Your task to perform on an android device: open app "DoorDash - Dasher" Image 0: 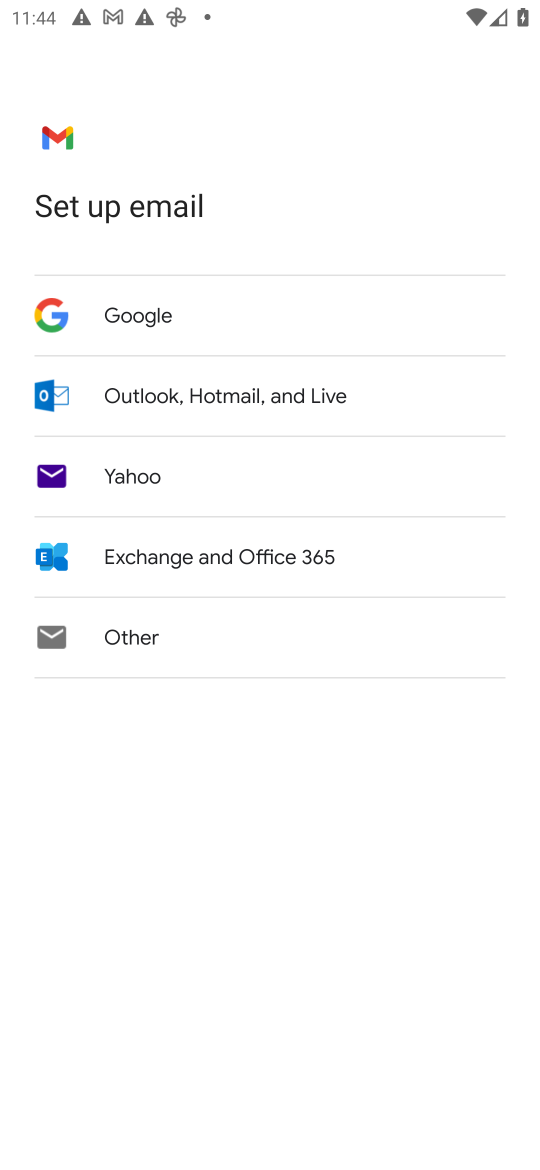
Step 0: press home button
Your task to perform on an android device: open app "DoorDash - Dasher" Image 1: 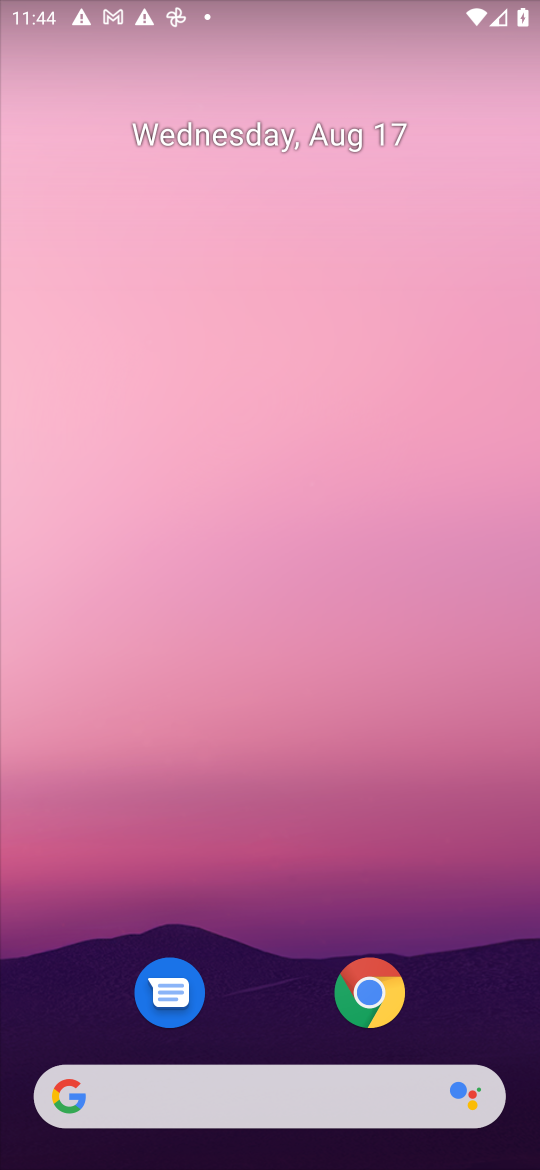
Step 1: drag from (485, 983) to (177, 147)
Your task to perform on an android device: open app "DoorDash - Dasher" Image 2: 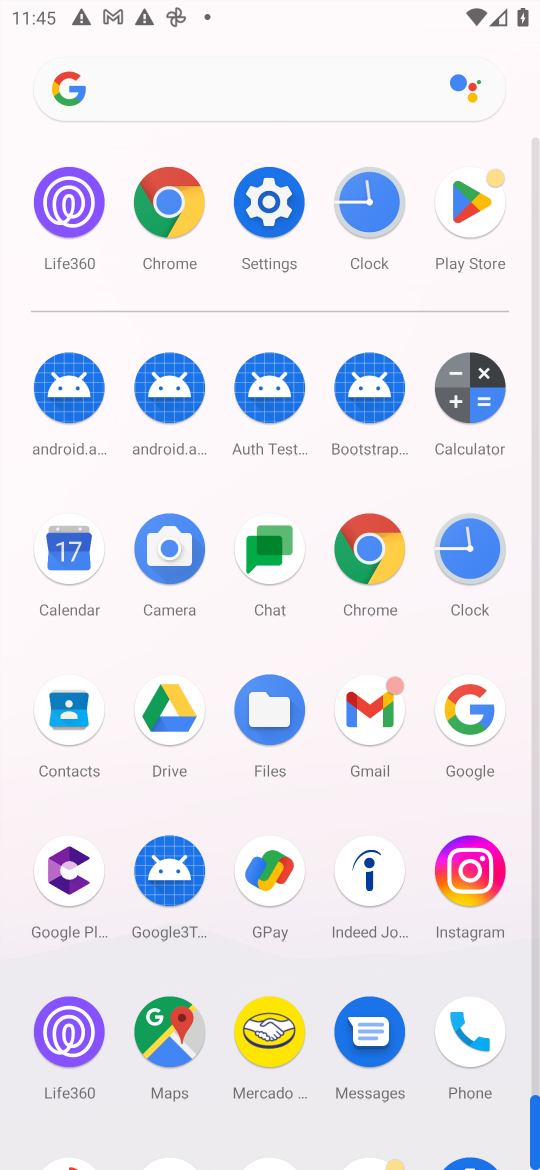
Step 2: click (460, 206)
Your task to perform on an android device: open app "DoorDash - Dasher" Image 3: 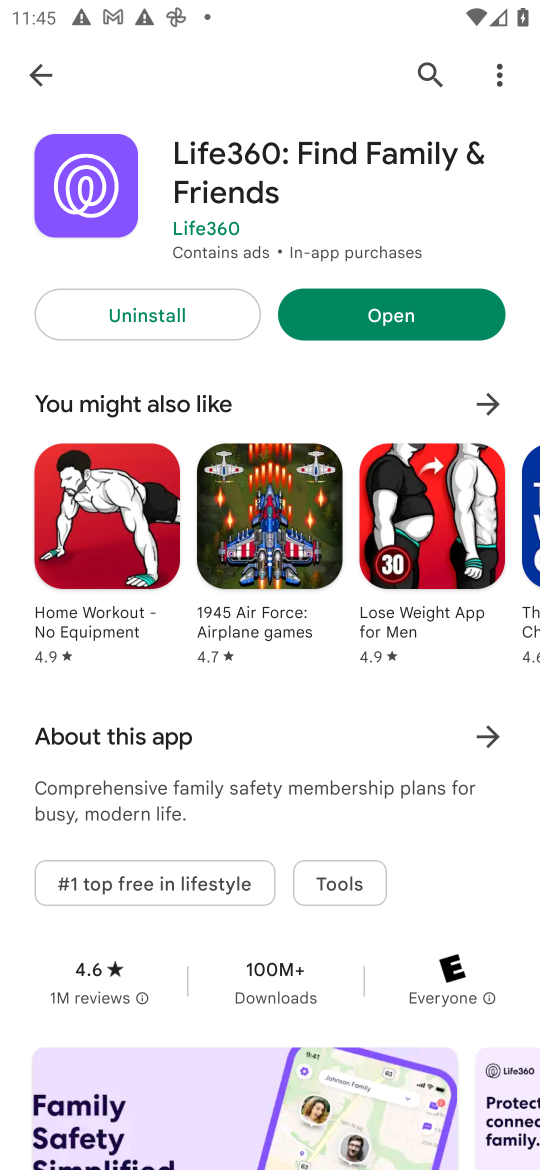
Step 3: press back button
Your task to perform on an android device: open app "DoorDash - Dasher" Image 4: 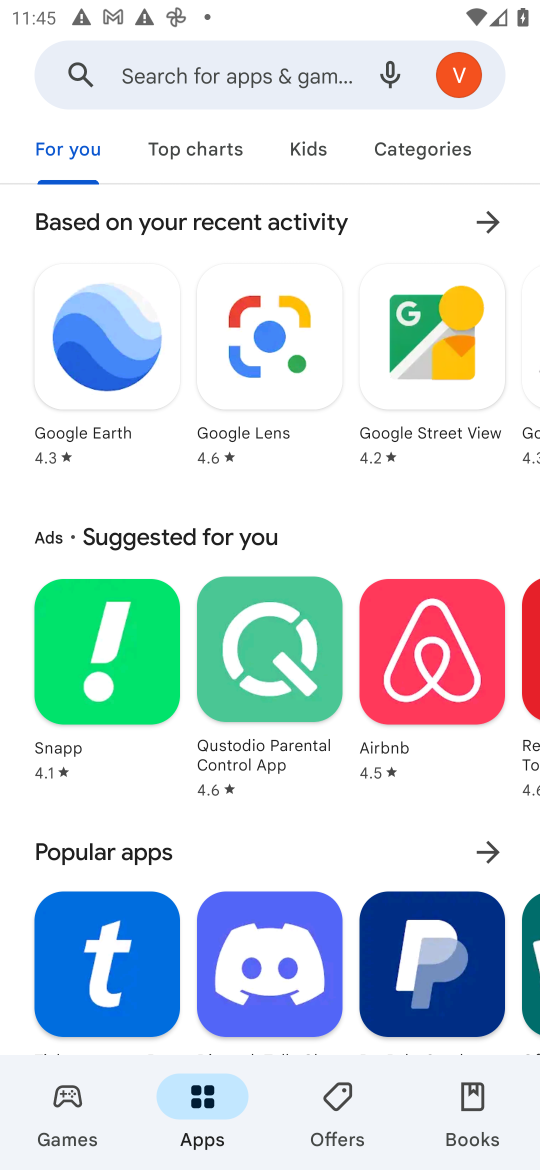
Step 4: click (188, 76)
Your task to perform on an android device: open app "DoorDash - Dasher" Image 5: 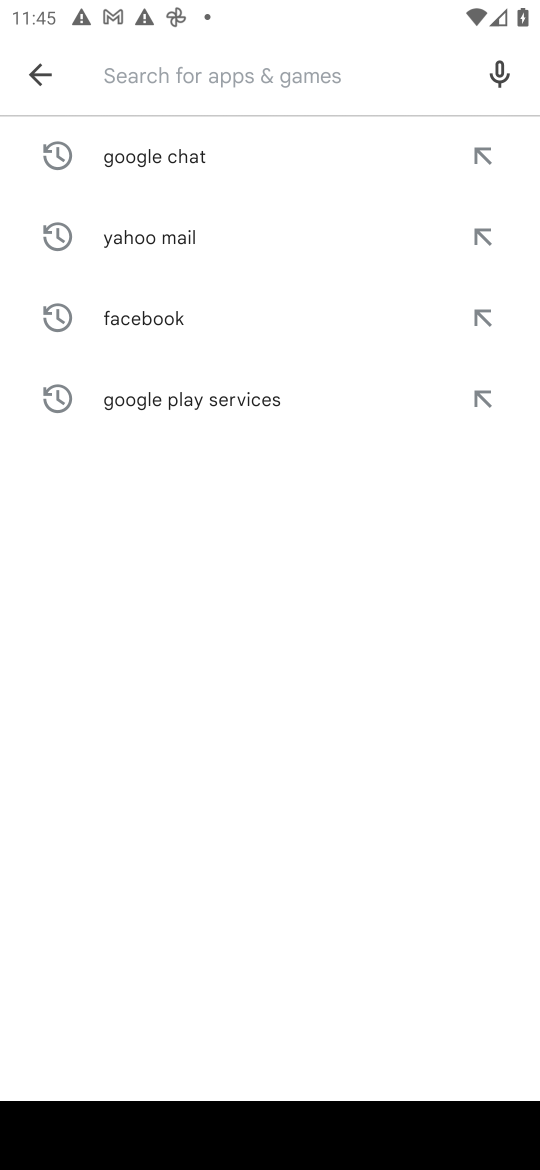
Step 5: type "DoorDash - Dasher"
Your task to perform on an android device: open app "DoorDash - Dasher" Image 6: 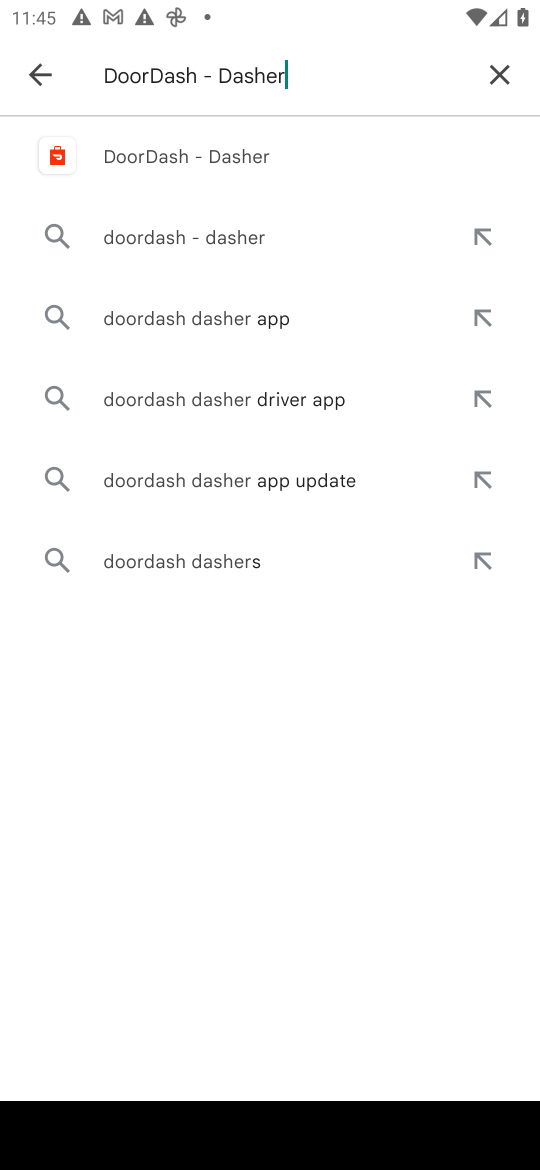
Step 6: click (157, 166)
Your task to perform on an android device: open app "DoorDash - Dasher" Image 7: 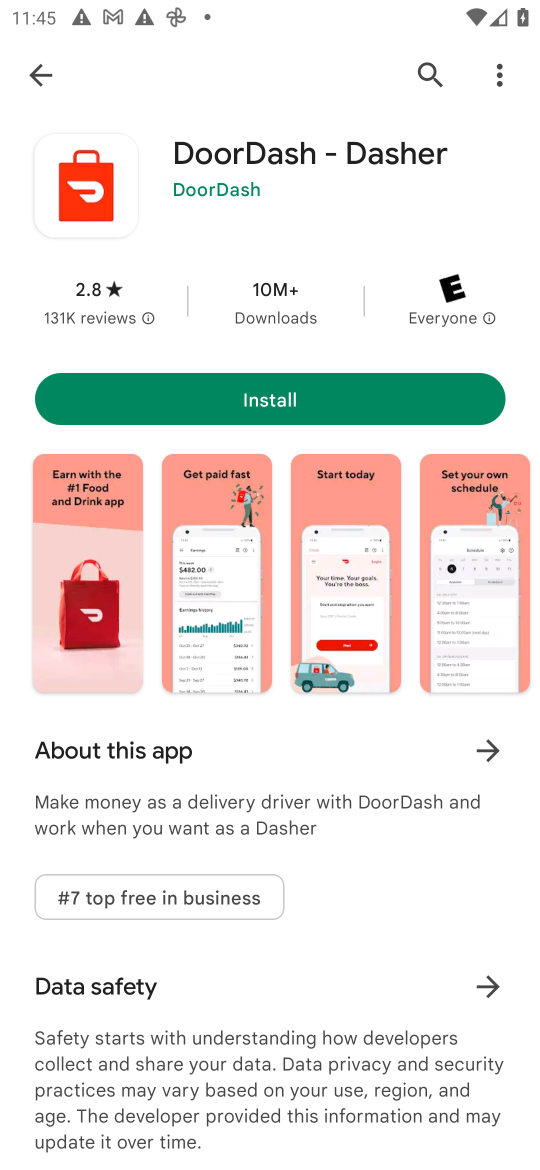
Step 7: task complete